Your task to perform on an android device: Go to display settings Image 0: 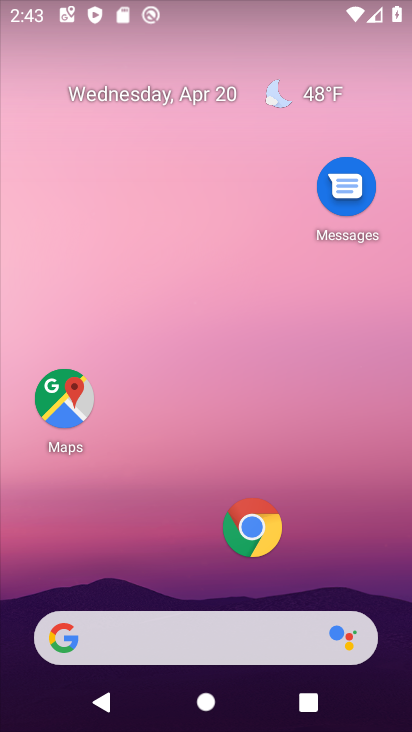
Step 0: drag from (179, 581) to (225, 89)
Your task to perform on an android device: Go to display settings Image 1: 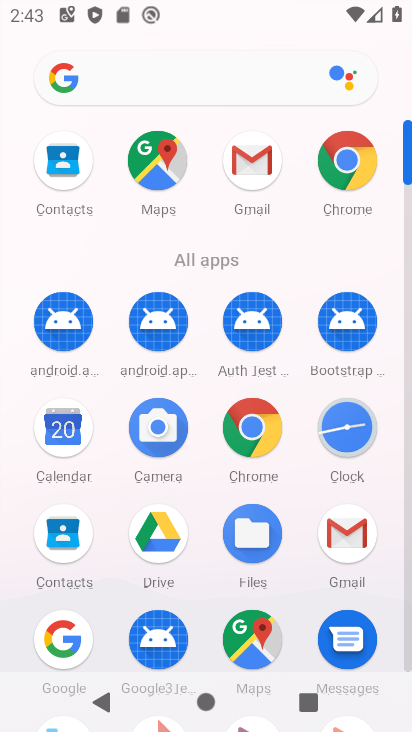
Step 1: drag from (219, 572) to (333, 218)
Your task to perform on an android device: Go to display settings Image 2: 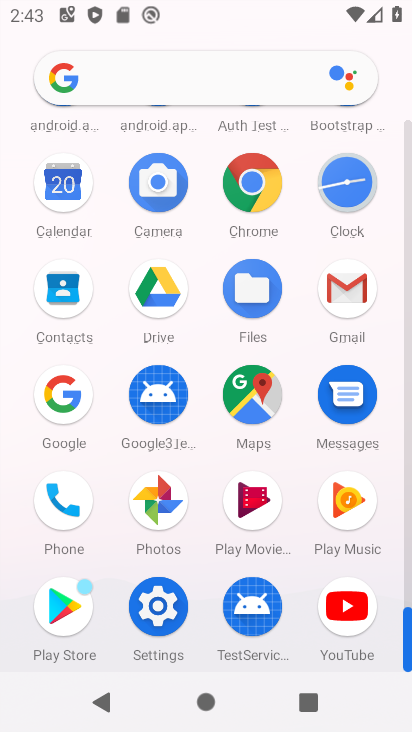
Step 2: click (164, 604)
Your task to perform on an android device: Go to display settings Image 3: 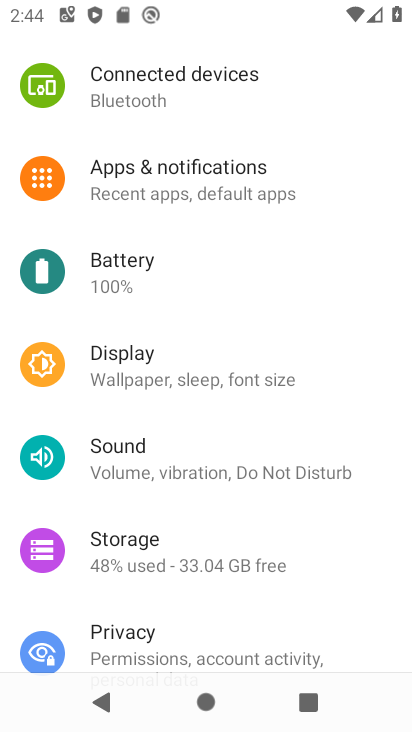
Step 3: click (146, 369)
Your task to perform on an android device: Go to display settings Image 4: 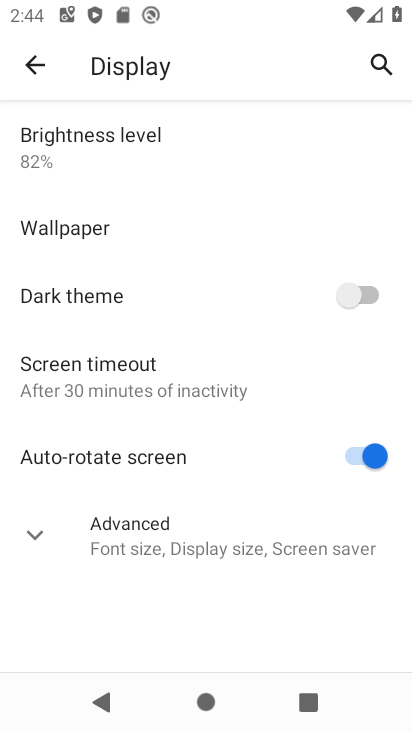
Step 4: task complete